Your task to perform on an android device: Open display settings Image 0: 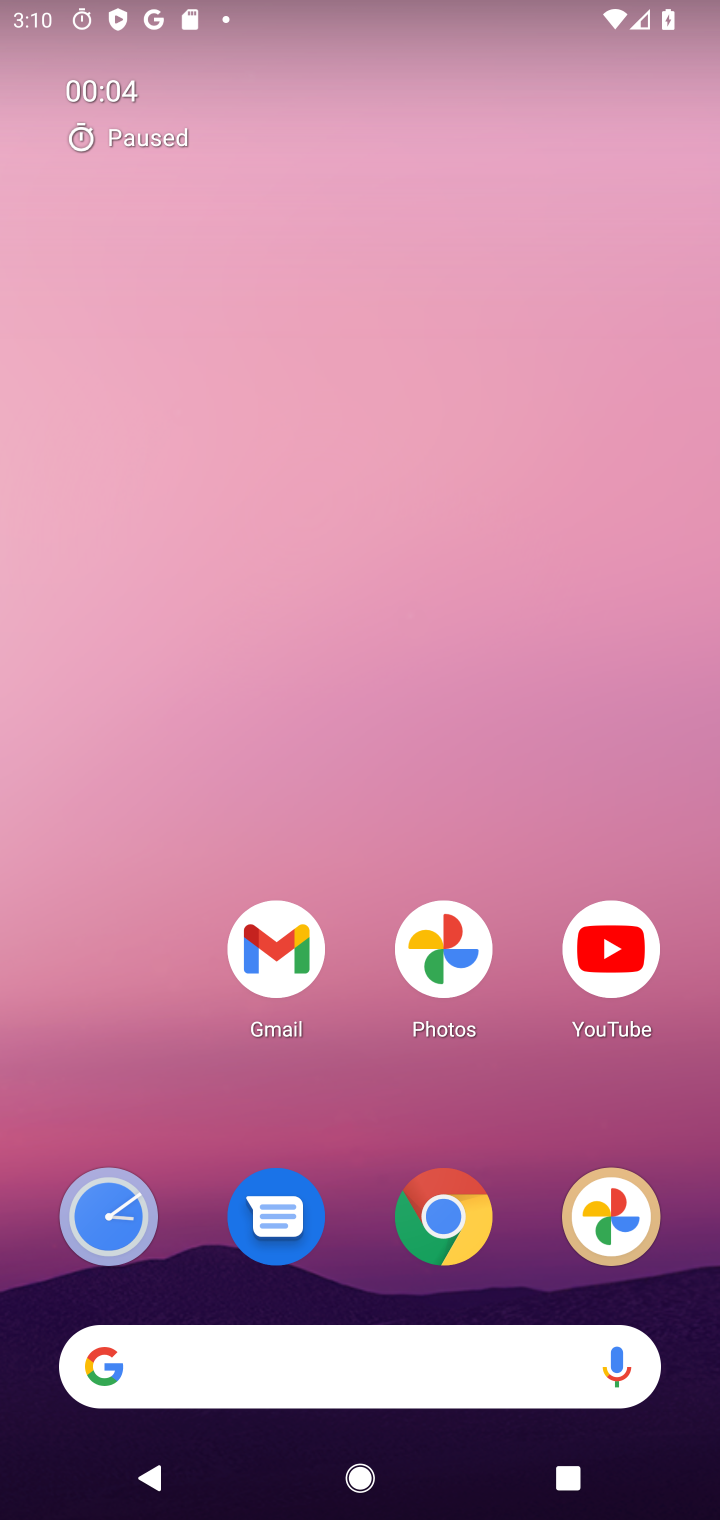
Step 0: drag from (119, 1104) to (396, 54)
Your task to perform on an android device: Open display settings Image 1: 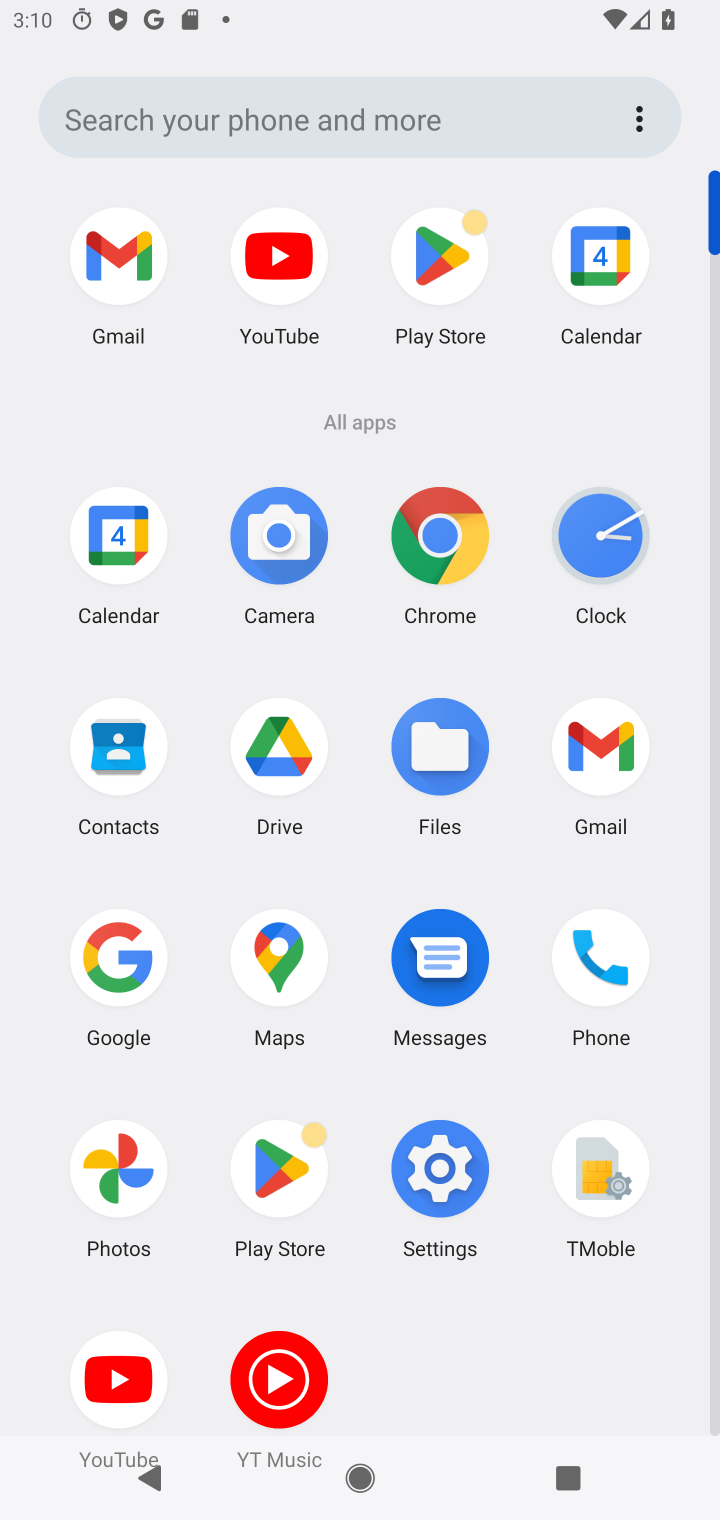
Step 1: click (442, 1170)
Your task to perform on an android device: Open display settings Image 2: 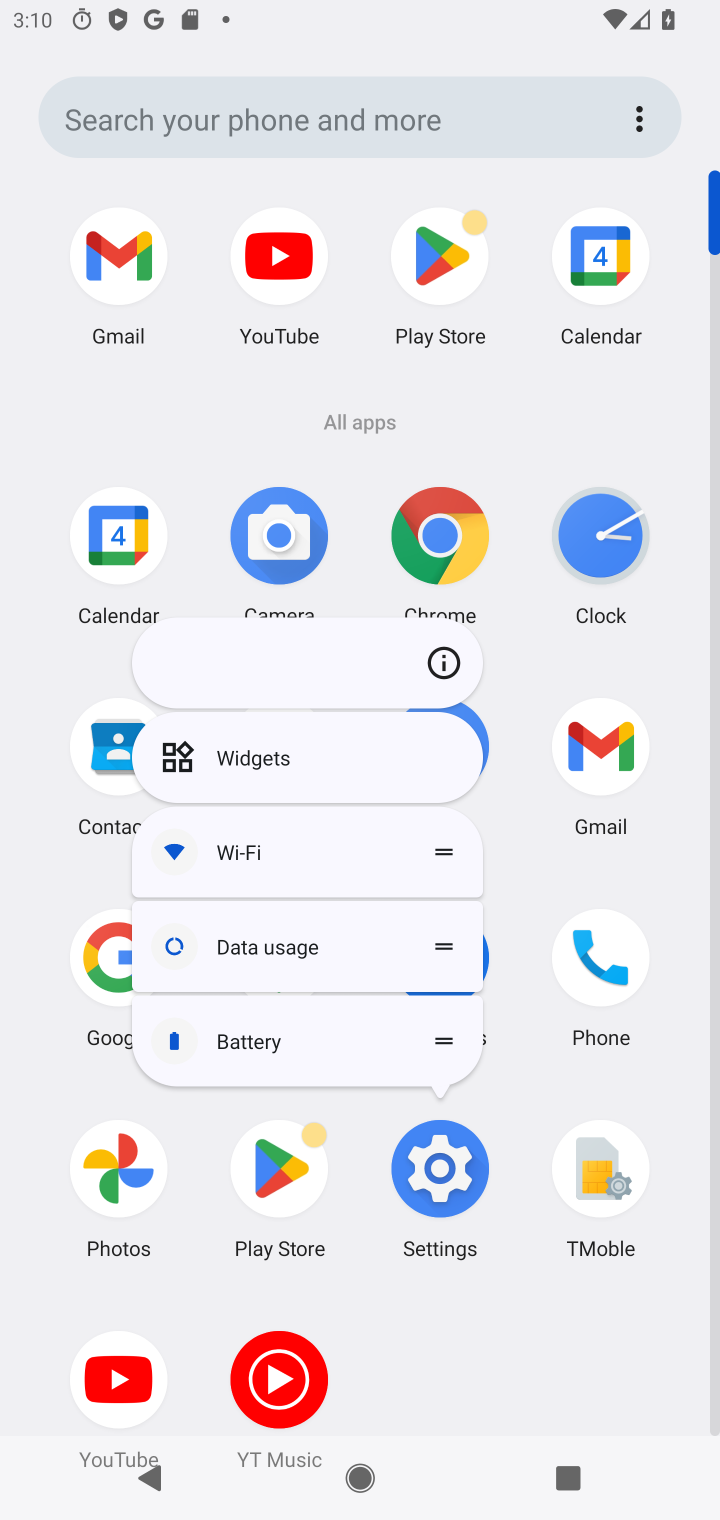
Step 2: click (435, 1187)
Your task to perform on an android device: Open display settings Image 3: 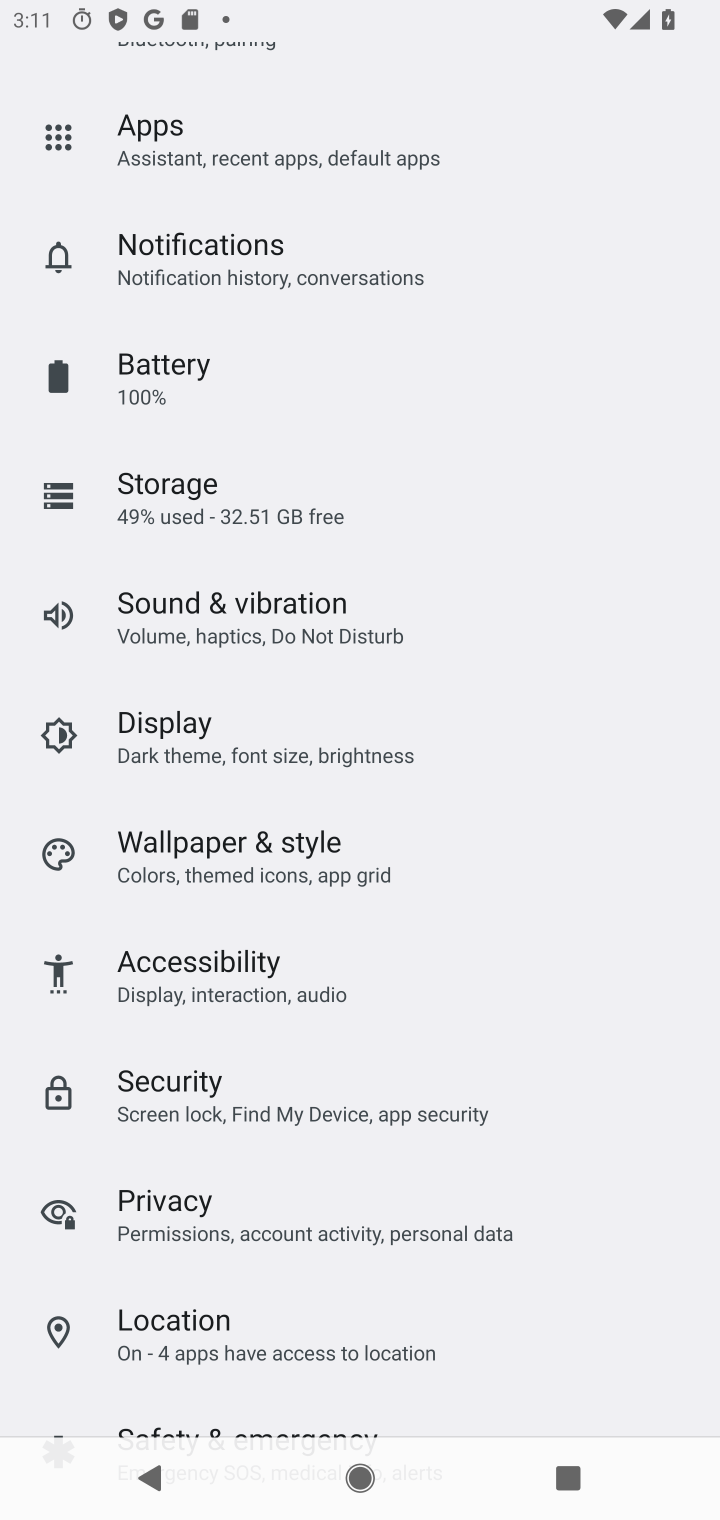
Step 3: drag from (354, 477) to (446, 319)
Your task to perform on an android device: Open display settings Image 4: 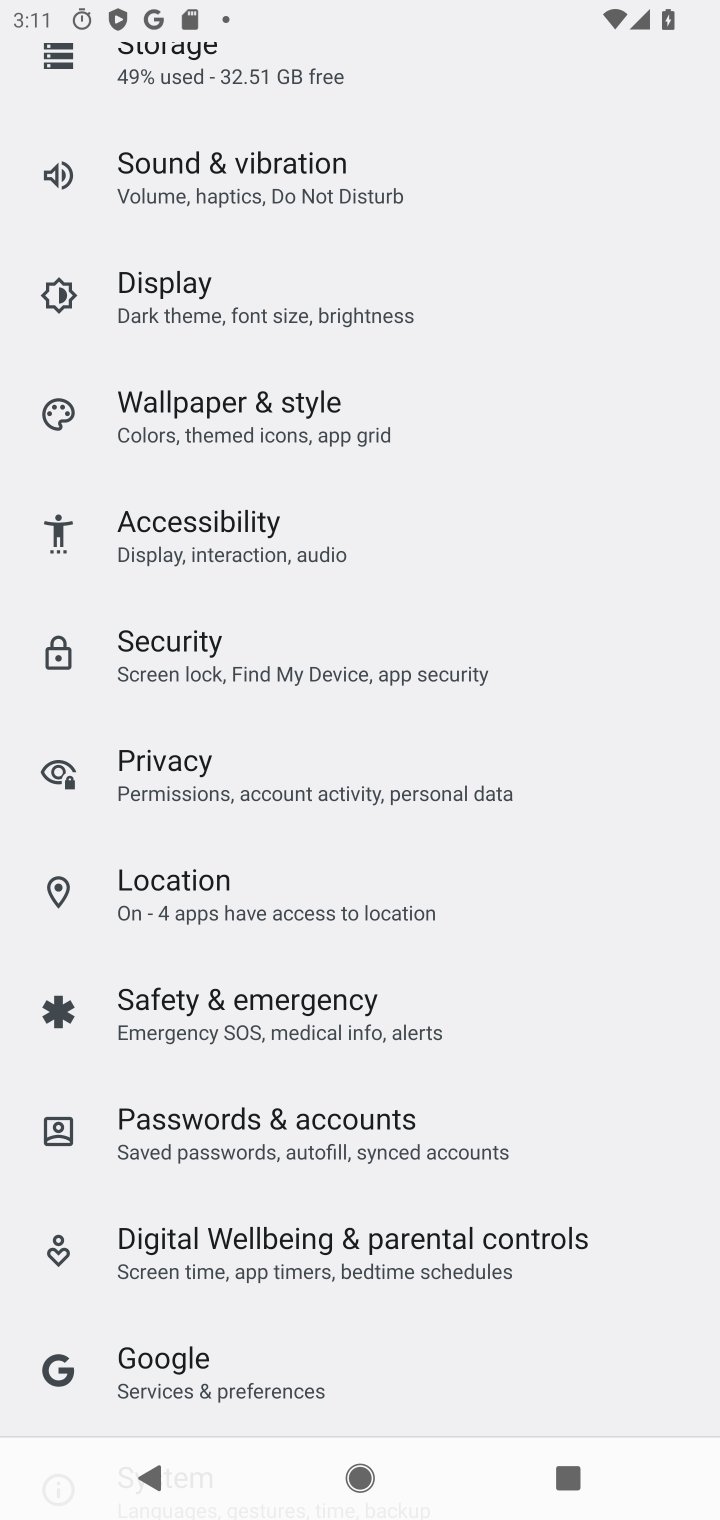
Step 4: click (278, 309)
Your task to perform on an android device: Open display settings Image 5: 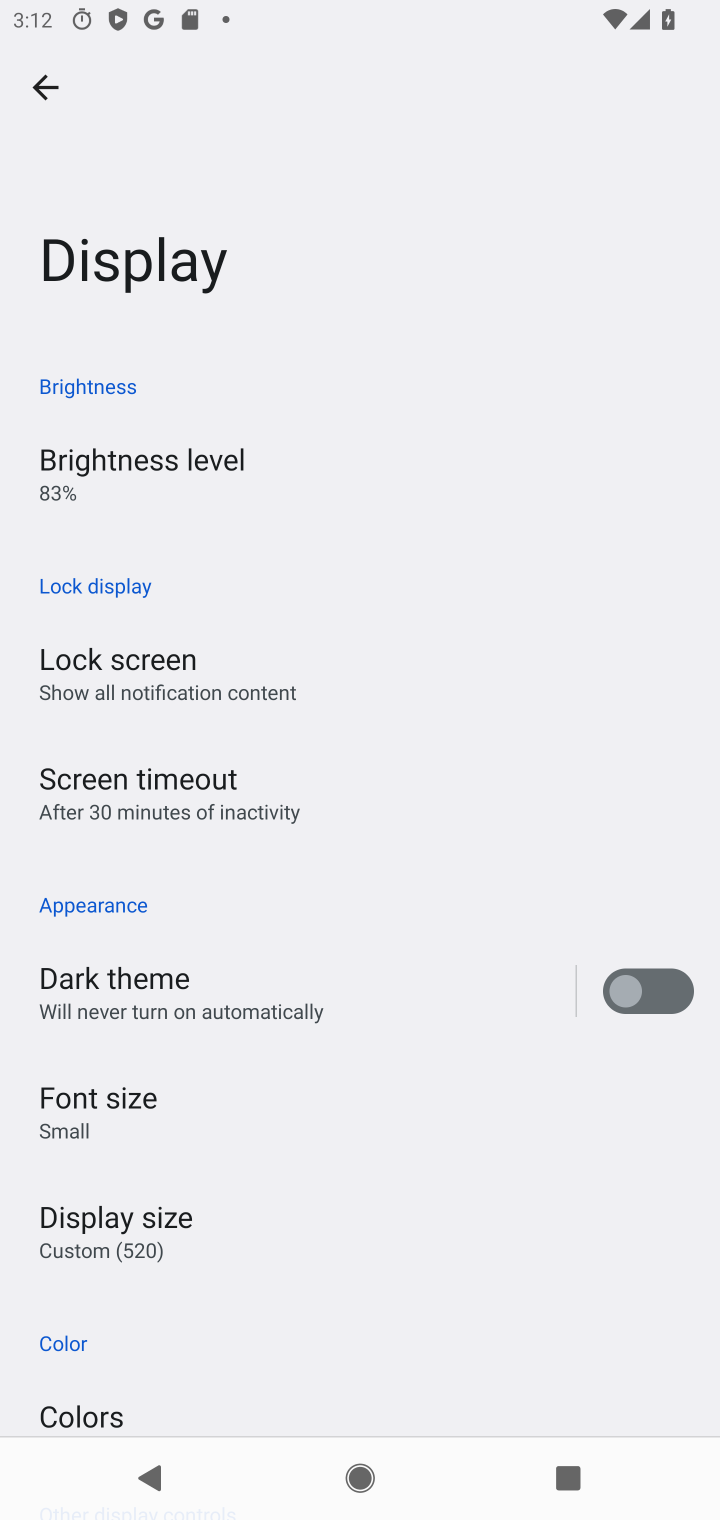
Step 5: task complete